Your task to perform on an android device: Search for vegetarian restaurants on Maps Image 0: 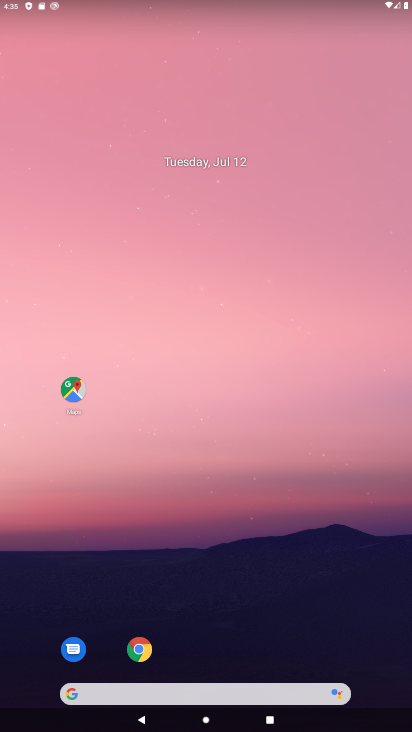
Step 0: click (73, 390)
Your task to perform on an android device: Search for vegetarian restaurants on Maps Image 1: 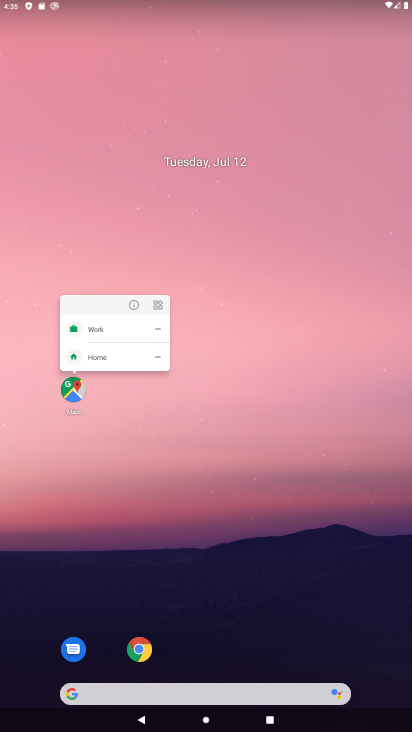
Step 1: click (73, 390)
Your task to perform on an android device: Search for vegetarian restaurants on Maps Image 2: 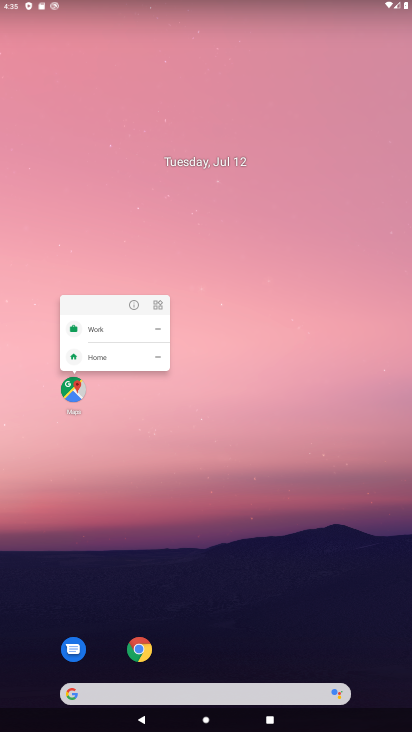
Step 2: click (73, 390)
Your task to perform on an android device: Search for vegetarian restaurants on Maps Image 3: 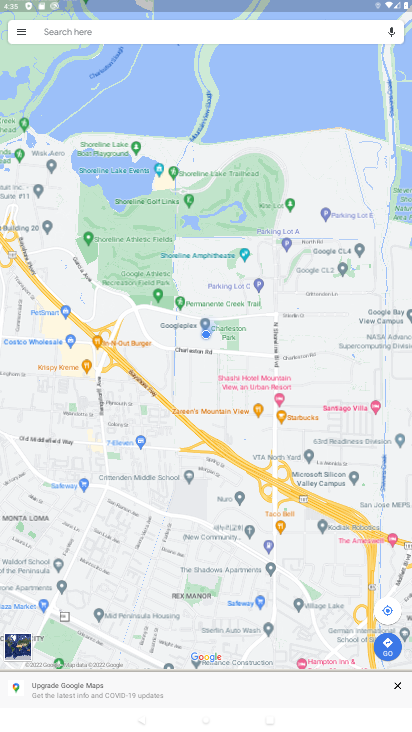
Step 3: click (116, 35)
Your task to perform on an android device: Search for vegetarian restaurants on Maps Image 4: 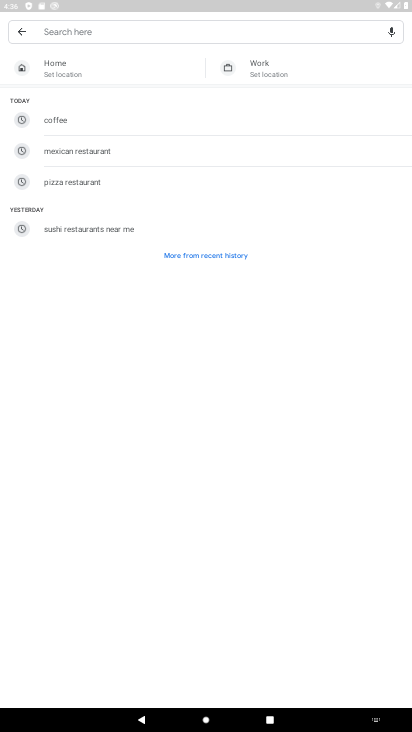
Step 4: type "vegetarian restaurants"
Your task to perform on an android device: Search for vegetarian restaurants on Maps Image 5: 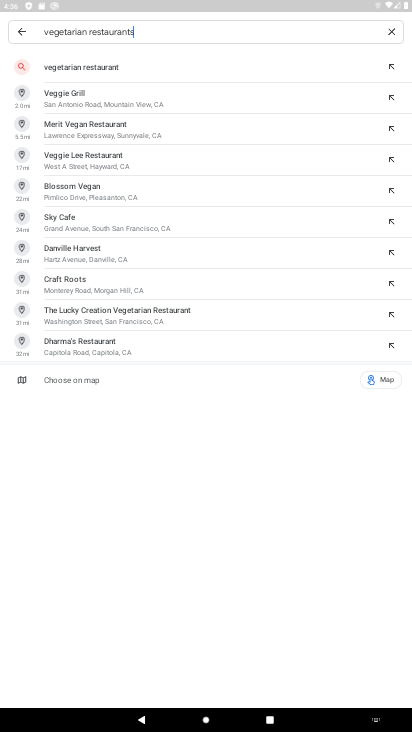
Step 5: click (89, 75)
Your task to perform on an android device: Search for vegetarian restaurants on Maps Image 6: 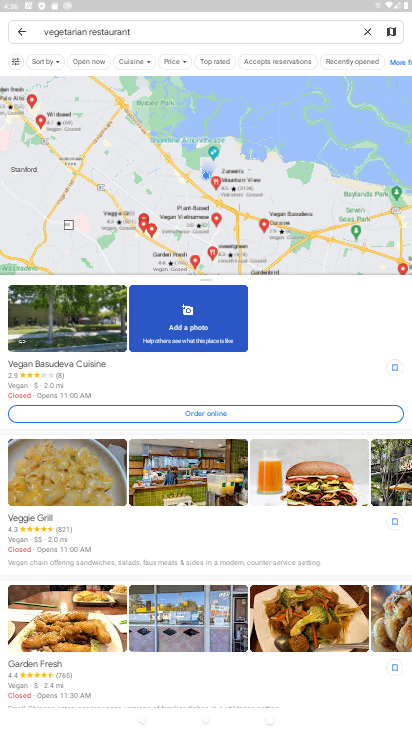
Step 6: task complete